Your task to perform on an android device: Search for pizza restaurants on Maps Image 0: 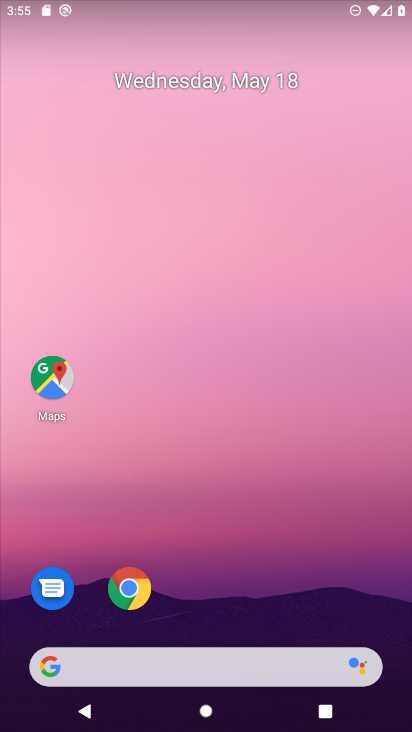
Step 0: click (34, 378)
Your task to perform on an android device: Search for pizza restaurants on Maps Image 1: 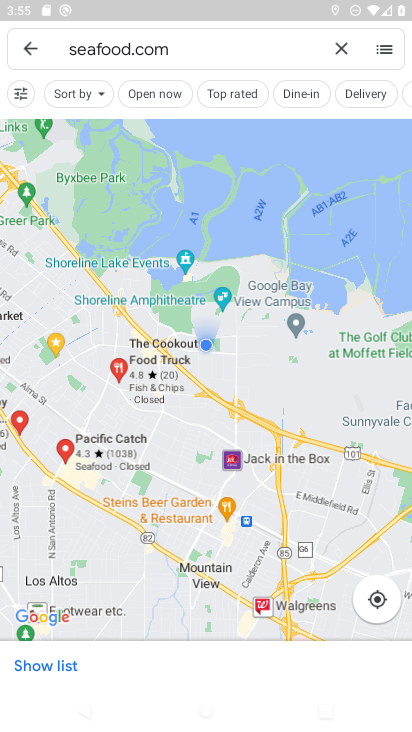
Step 1: click (336, 53)
Your task to perform on an android device: Search for pizza restaurants on Maps Image 2: 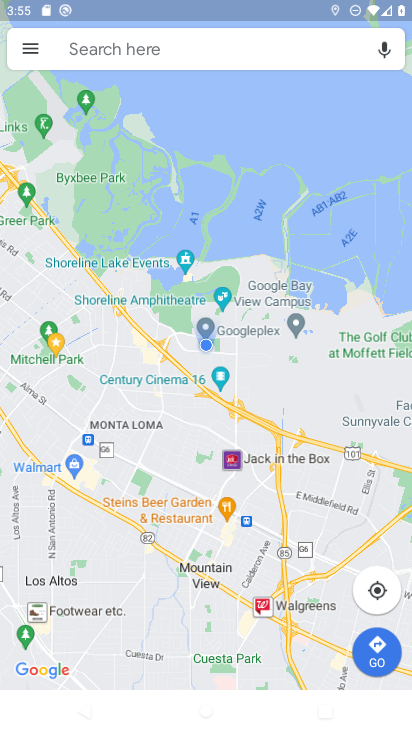
Step 2: click (180, 43)
Your task to perform on an android device: Search for pizza restaurants on Maps Image 3: 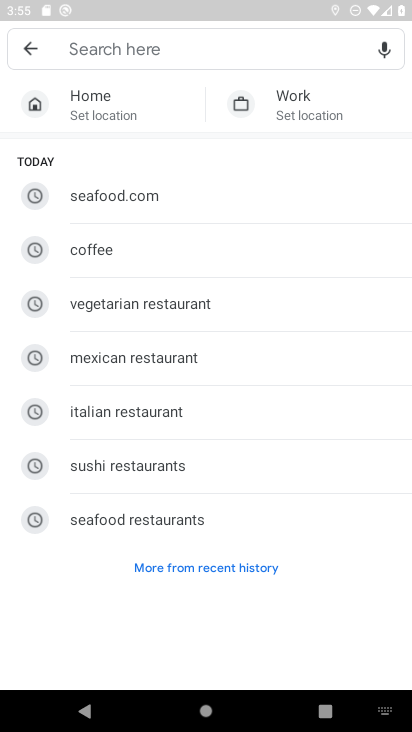
Step 3: type "pizza"
Your task to perform on an android device: Search for pizza restaurants on Maps Image 4: 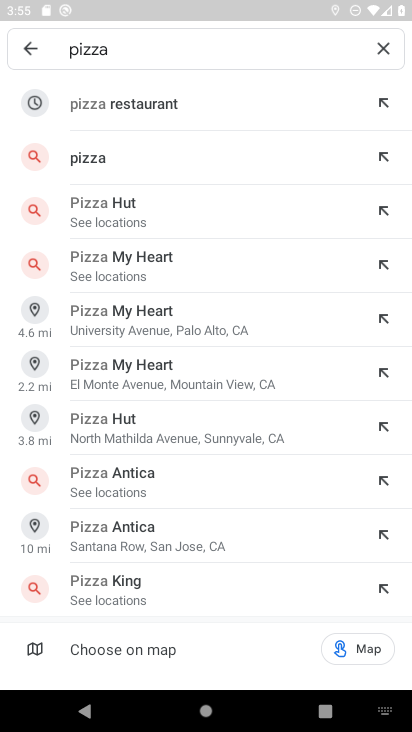
Step 4: click (178, 113)
Your task to perform on an android device: Search for pizza restaurants on Maps Image 5: 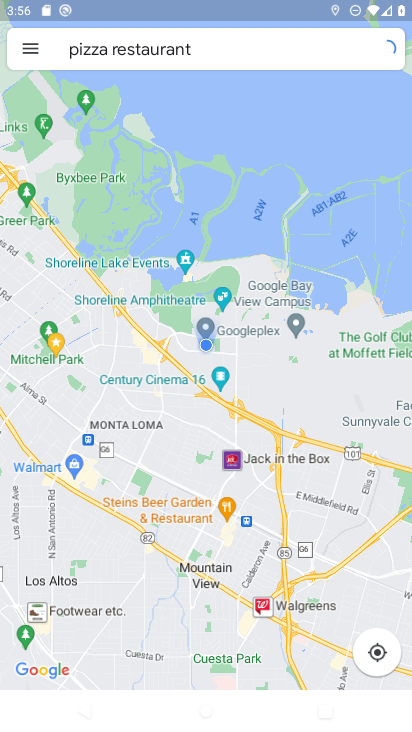
Step 5: task complete